Your task to perform on an android device: open device folders in google photos Image 0: 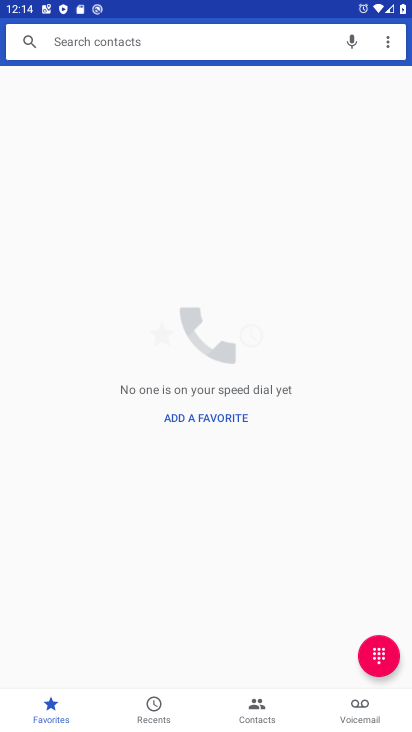
Step 0: press home button
Your task to perform on an android device: open device folders in google photos Image 1: 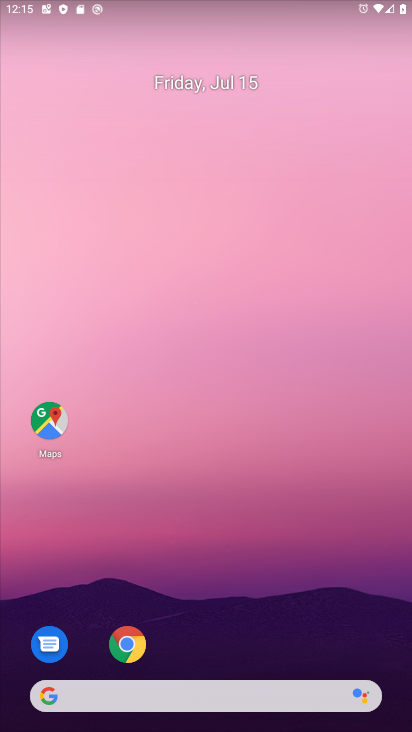
Step 1: drag from (367, 642) to (249, 7)
Your task to perform on an android device: open device folders in google photos Image 2: 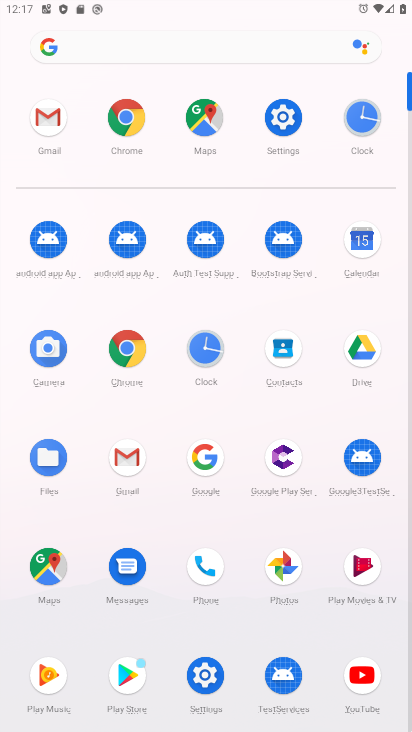
Step 2: click (272, 560)
Your task to perform on an android device: open device folders in google photos Image 3: 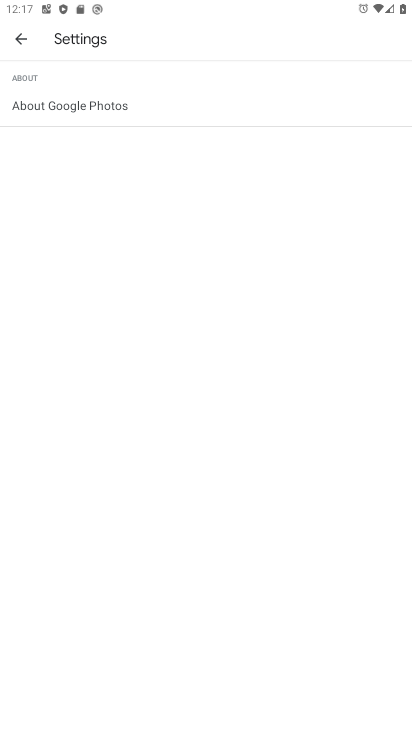
Step 3: press back button
Your task to perform on an android device: open device folders in google photos Image 4: 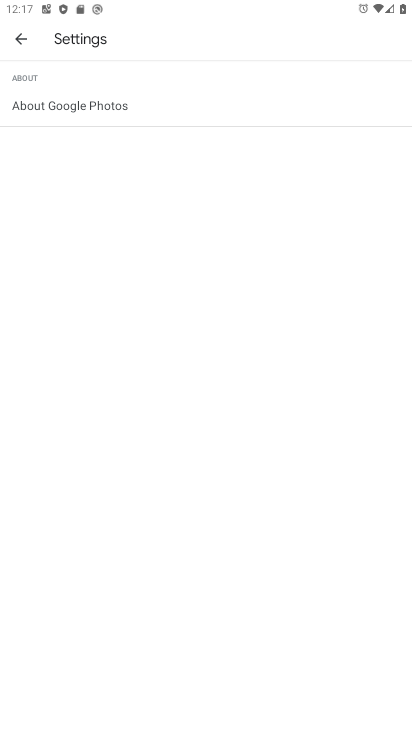
Step 4: press back button
Your task to perform on an android device: open device folders in google photos Image 5: 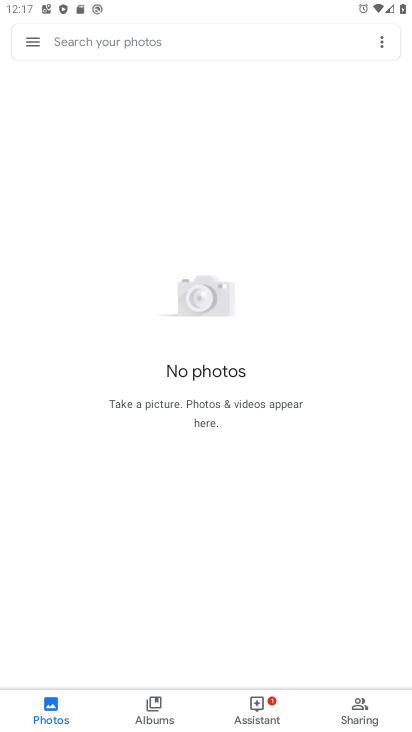
Step 5: click (24, 40)
Your task to perform on an android device: open device folders in google photos Image 6: 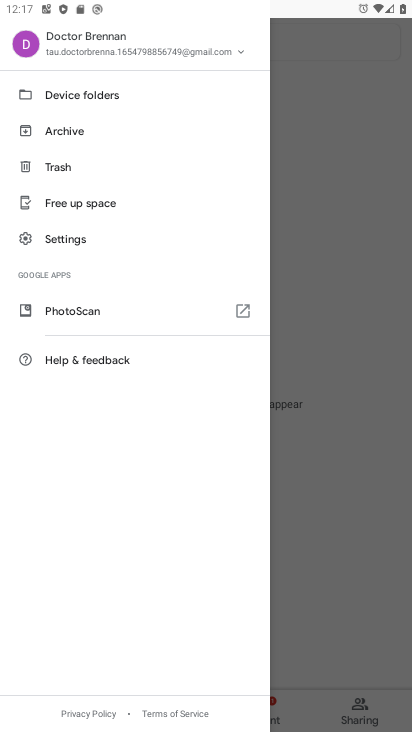
Step 6: click (93, 92)
Your task to perform on an android device: open device folders in google photos Image 7: 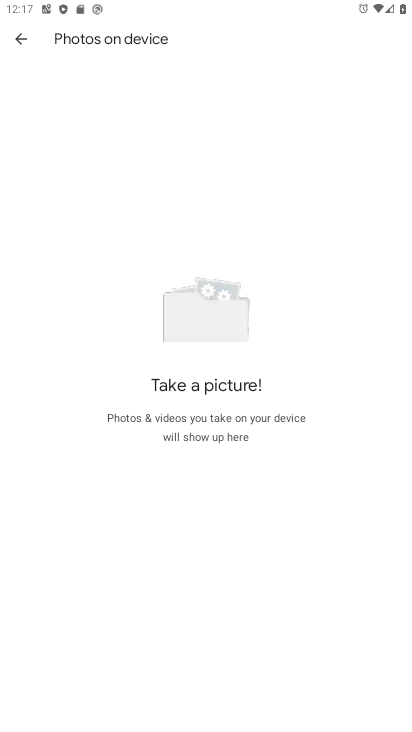
Step 7: task complete